Your task to perform on an android device: turn on airplane mode Image 0: 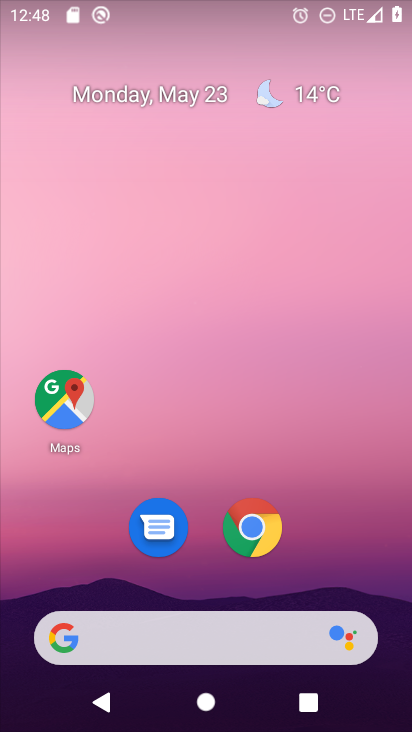
Step 0: drag from (327, 579) to (289, 81)
Your task to perform on an android device: turn on airplane mode Image 1: 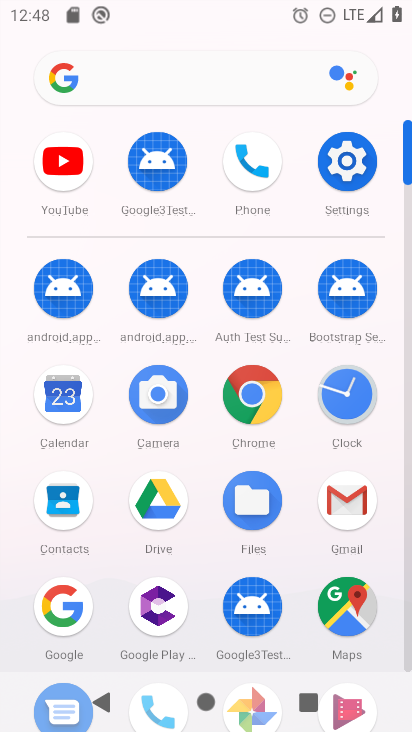
Step 1: click (347, 172)
Your task to perform on an android device: turn on airplane mode Image 2: 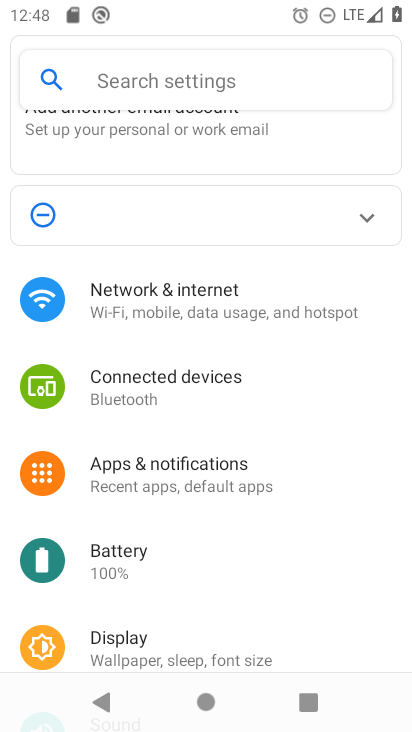
Step 2: click (224, 326)
Your task to perform on an android device: turn on airplane mode Image 3: 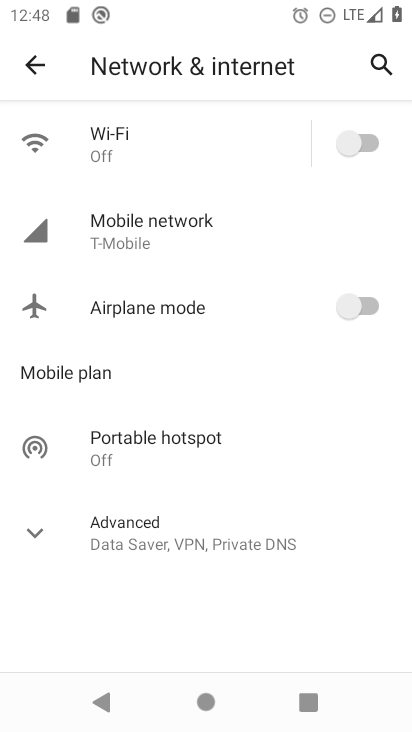
Step 3: task complete